Your task to perform on an android device: Search for seafood restaurants on Google Maps Image 0: 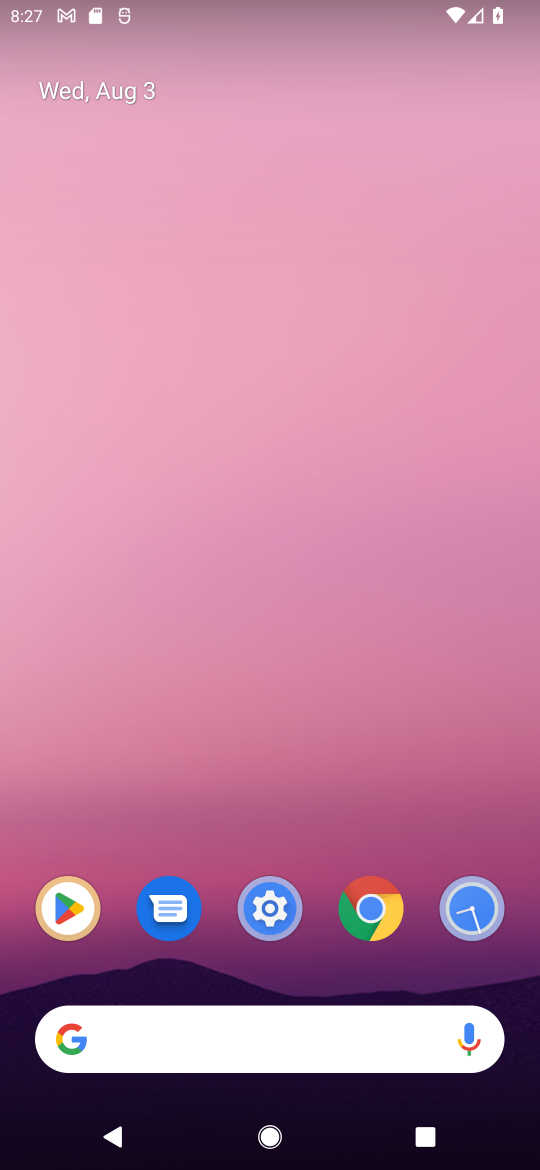
Step 0: drag from (244, 1046) to (139, 89)
Your task to perform on an android device: Search for seafood restaurants on Google Maps Image 1: 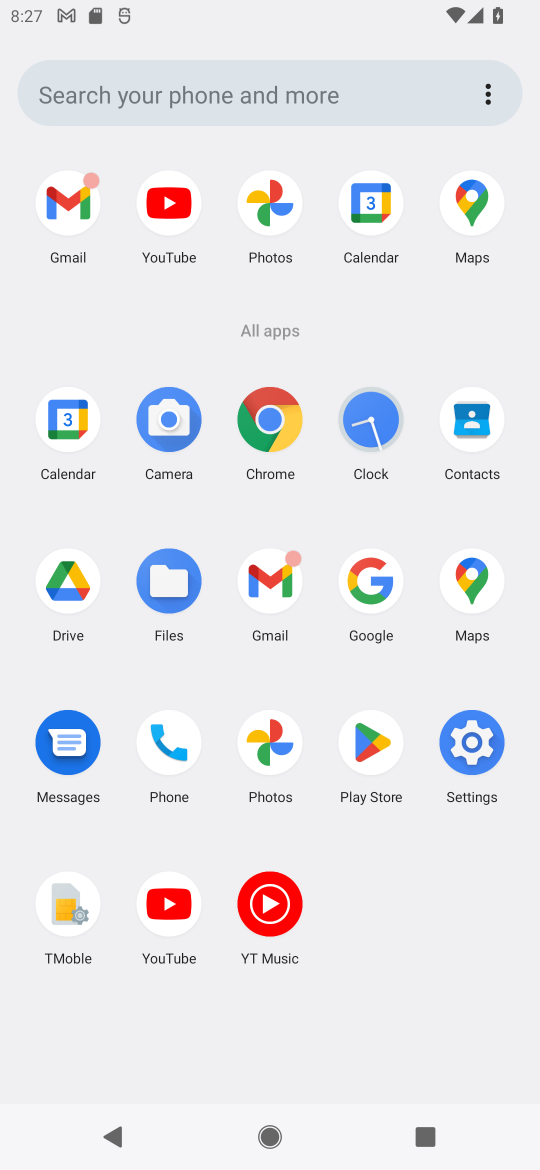
Step 1: click (456, 205)
Your task to perform on an android device: Search for seafood restaurants on Google Maps Image 2: 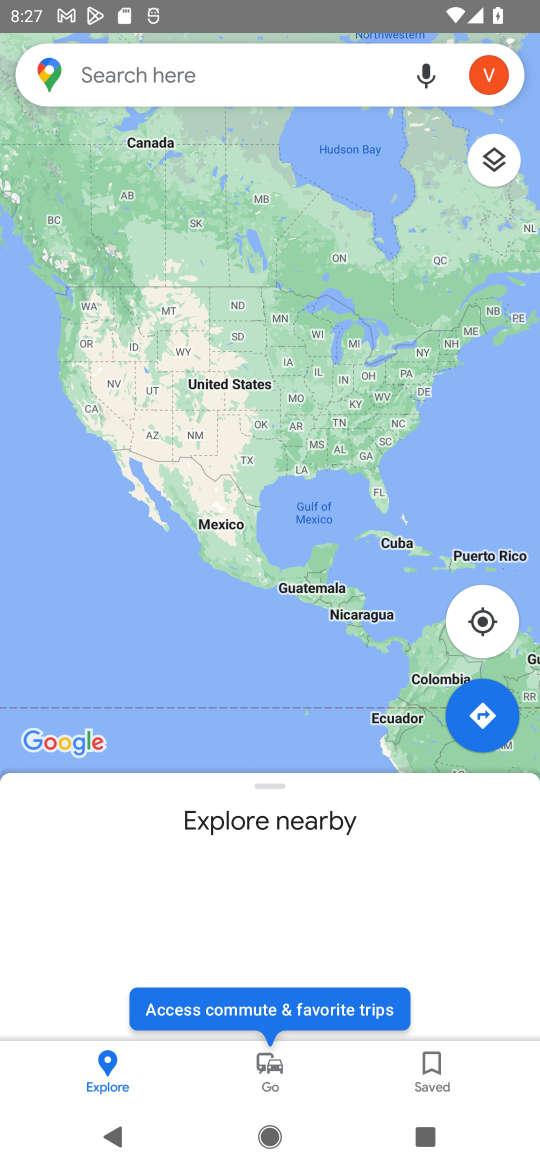
Step 2: click (185, 66)
Your task to perform on an android device: Search for seafood restaurants on Google Maps Image 3: 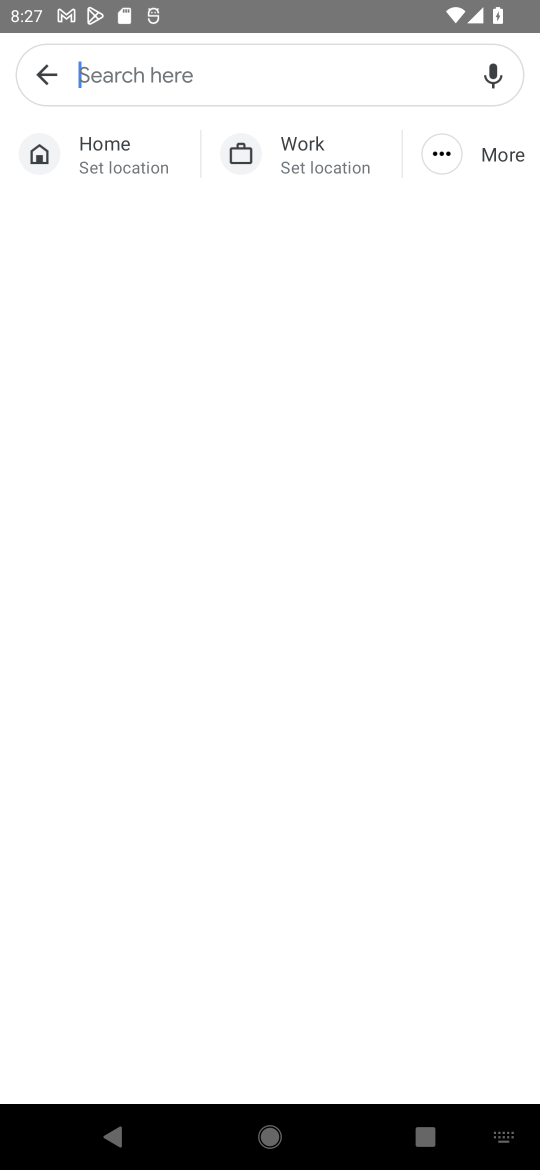
Step 3: type "seafood restaurants"
Your task to perform on an android device: Search for seafood restaurants on Google Maps Image 4: 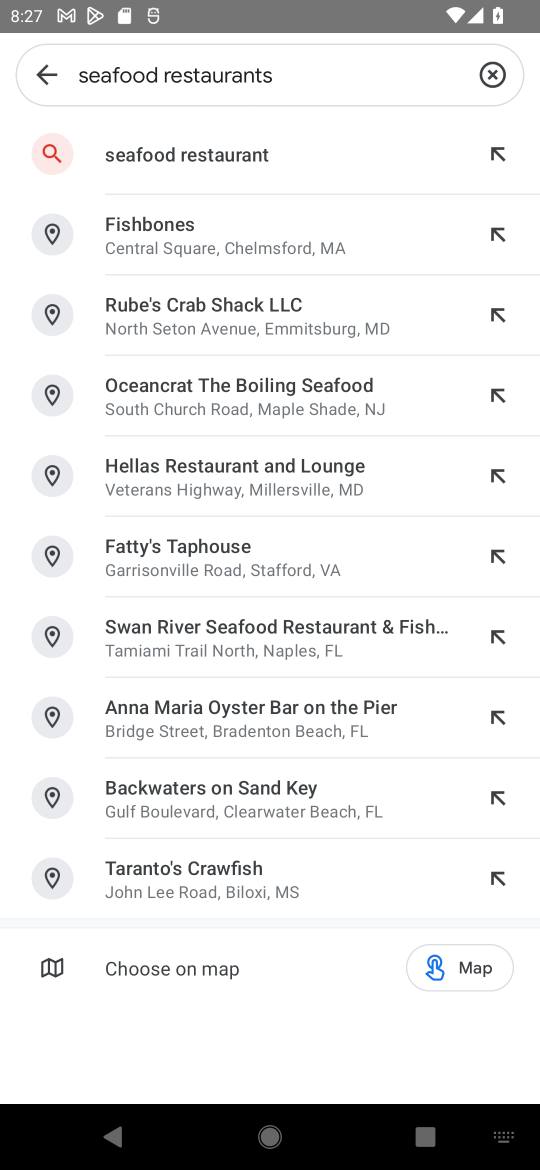
Step 4: click (213, 169)
Your task to perform on an android device: Search for seafood restaurants on Google Maps Image 5: 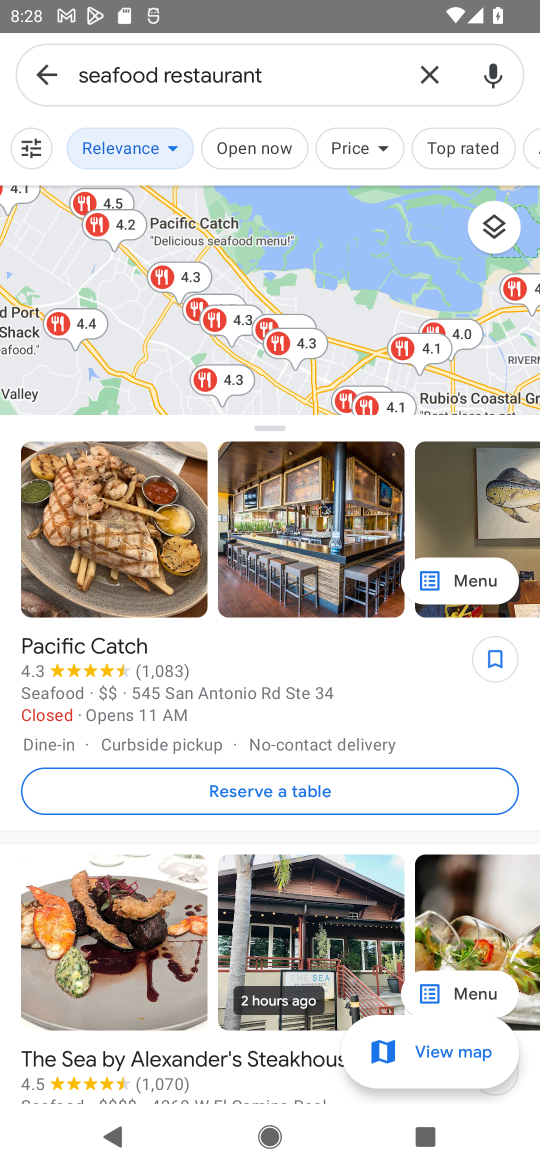
Step 5: task complete